Your task to perform on an android device: turn on notifications settings in the gmail app Image 0: 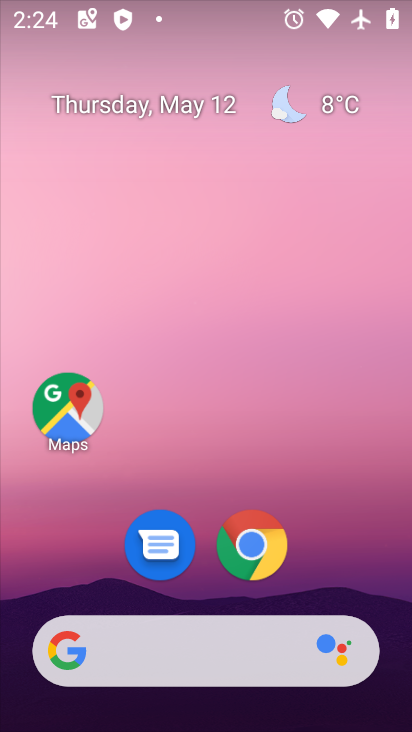
Step 0: drag from (392, 616) to (245, 18)
Your task to perform on an android device: turn on notifications settings in the gmail app Image 1: 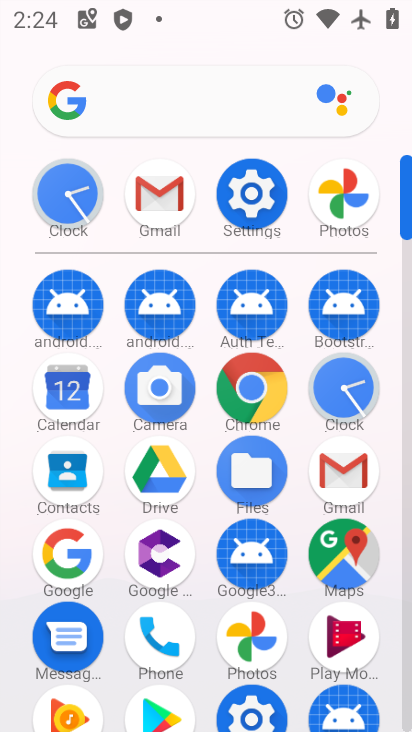
Step 1: click (339, 469)
Your task to perform on an android device: turn on notifications settings in the gmail app Image 2: 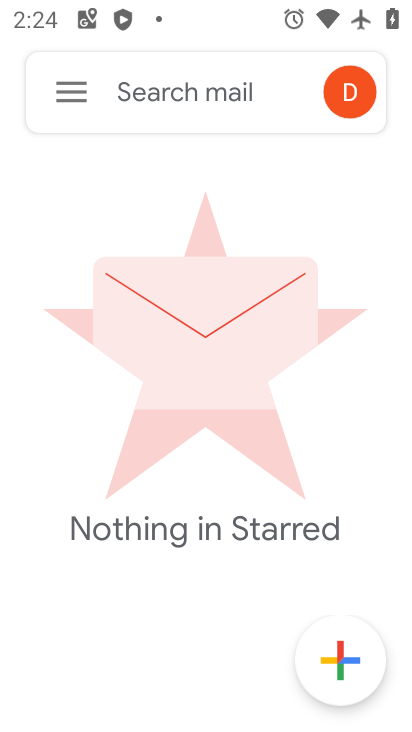
Step 2: click (65, 88)
Your task to perform on an android device: turn on notifications settings in the gmail app Image 3: 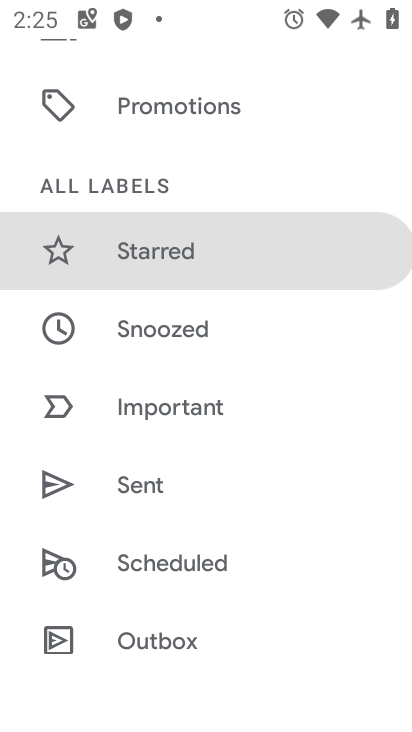
Step 3: drag from (287, 643) to (280, 232)
Your task to perform on an android device: turn on notifications settings in the gmail app Image 4: 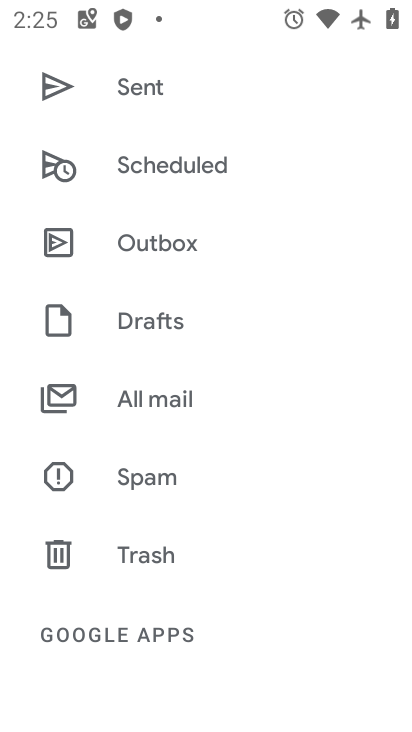
Step 4: drag from (256, 562) to (256, 163)
Your task to perform on an android device: turn on notifications settings in the gmail app Image 5: 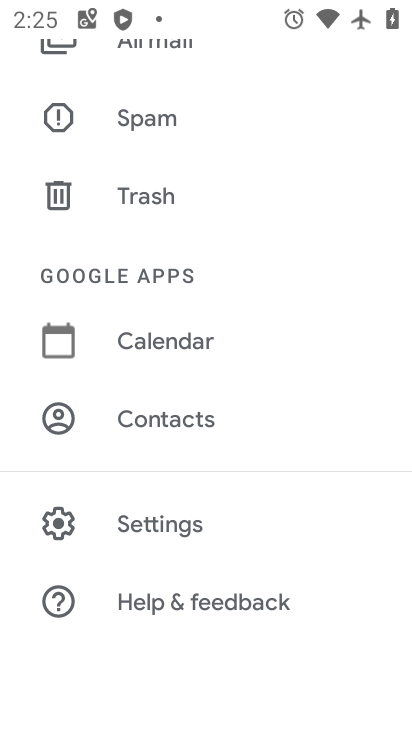
Step 5: click (148, 515)
Your task to perform on an android device: turn on notifications settings in the gmail app Image 6: 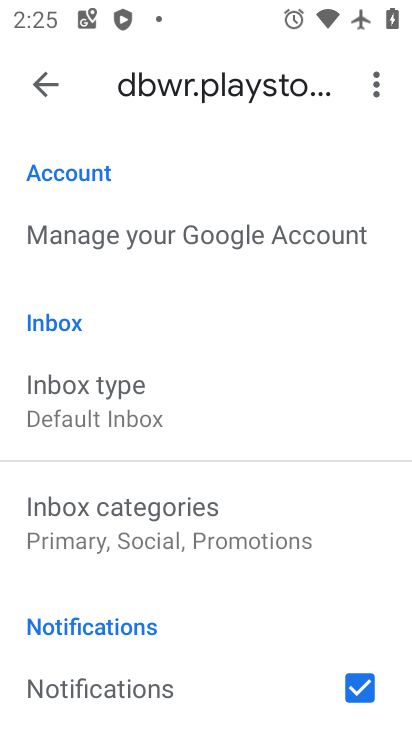
Step 6: drag from (318, 573) to (229, 180)
Your task to perform on an android device: turn on notifications settings in the gmail app Image 7: 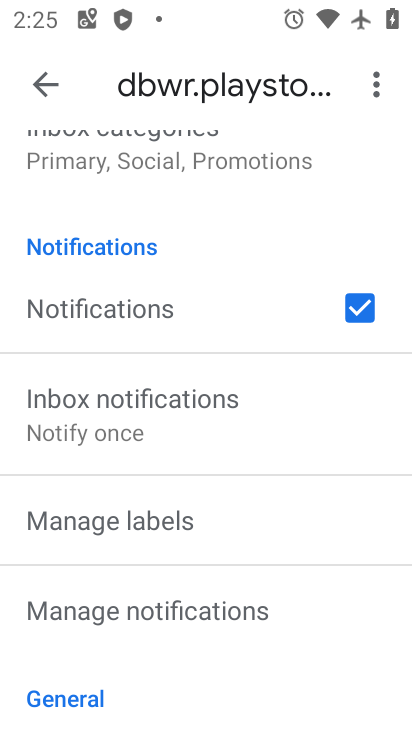
Step 7: click (109, 599)
Your task to perform on an android device: turn on notifications settings in the gmail app Image 8: 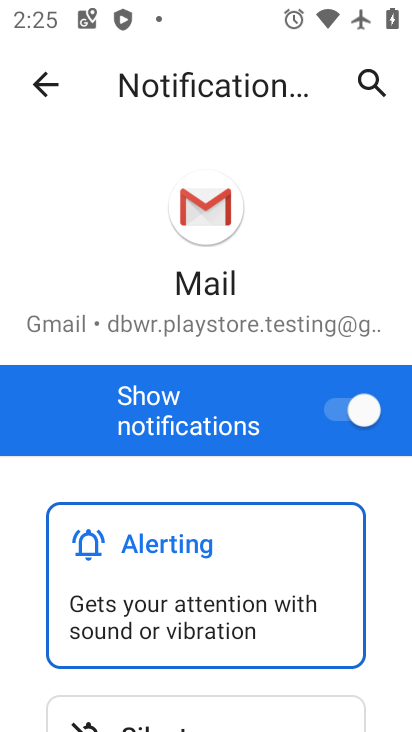
Step 8: task complete